Your task to perform on an android device: move a message to another label in the gmail app Image 0: 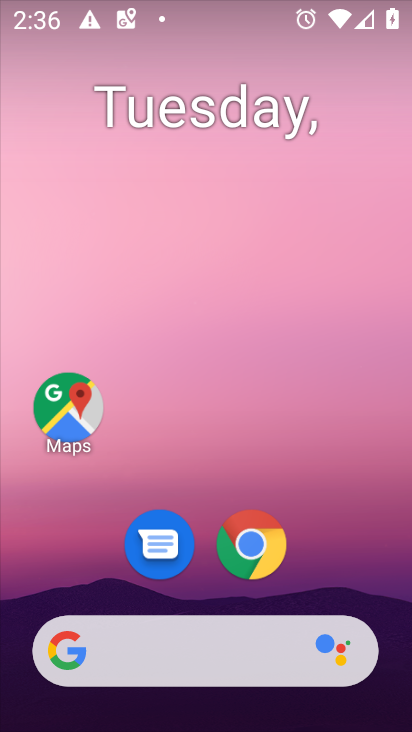
Step 0: drag from (328, 526) to (294, 40)
Your task to perform on an android device: move a message to another label in the gmail app Image 1: 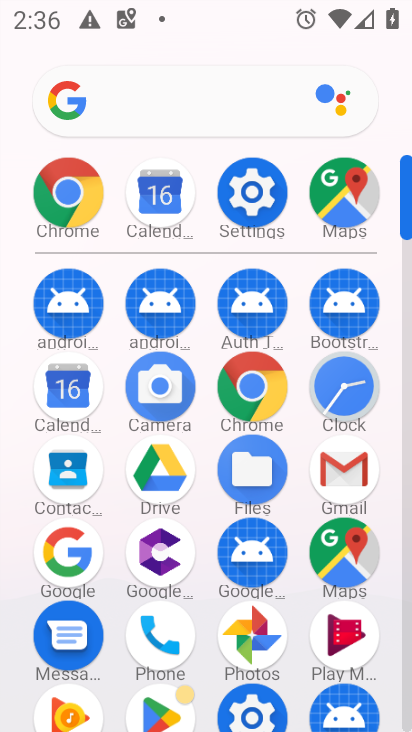
Step 1: click (353, 467)
Your task to perform on an android device: move a message to another label in the gmail app Image 2: 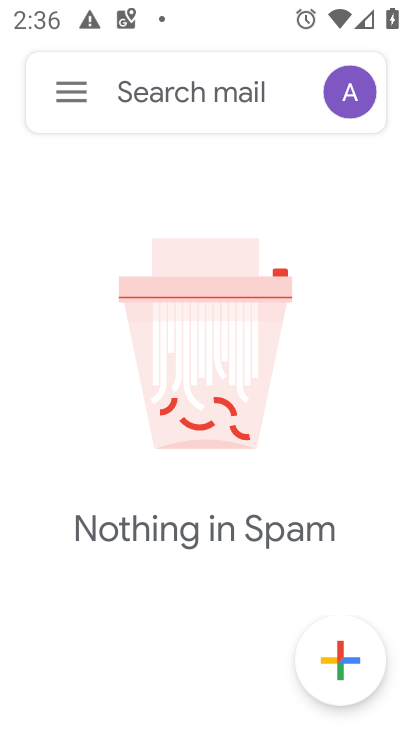
Step 2: click (46, 94)
Your task to perform on an android device: move a message to another label in the gmail app Image 3: 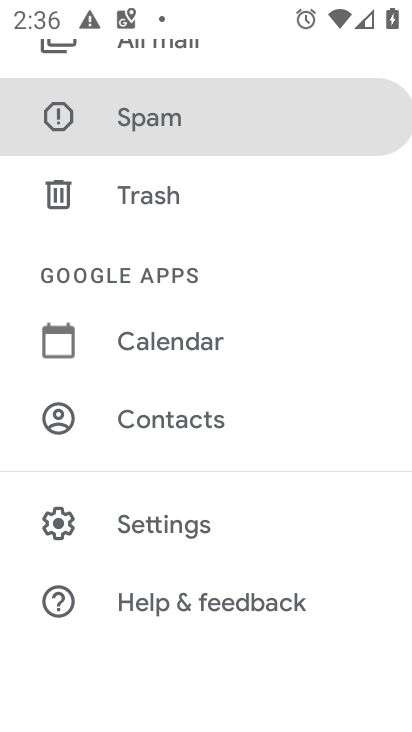
Step 3: click (173, 44)
Your task to perform on an android device: move a message to another label in the gmail app Image 4: 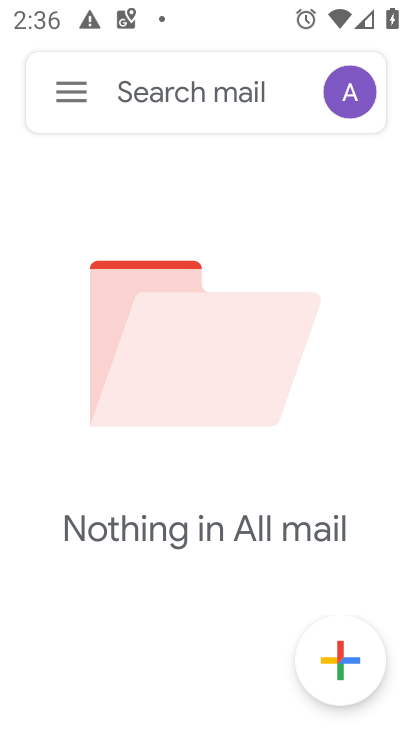
Step 4: task complete